Your task to perform on an android device: Play the last video I watched on Youtube Image 0: 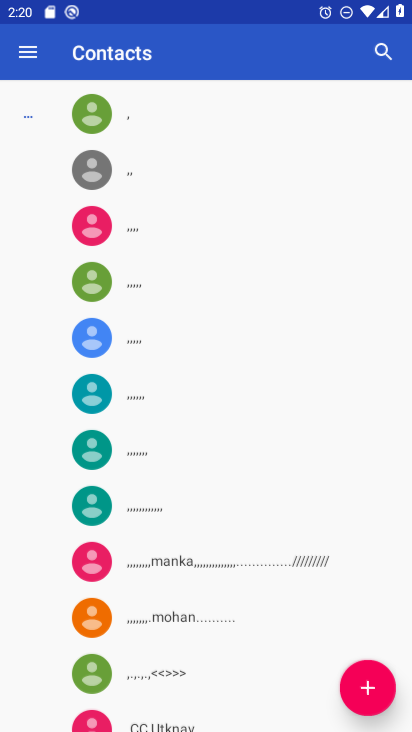
Step 0: drag from (280, 686) to (345, 437)
Your task to perform on an android device: Play the last video I watched on Youtube Image 1: 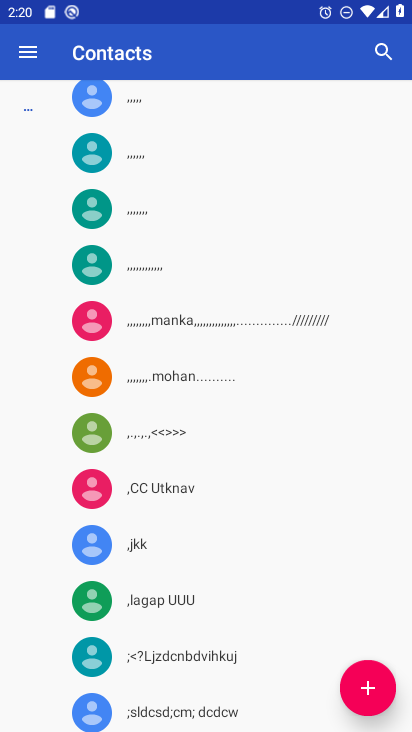
Step 1: press home button
Your task to perform on an android device: Play the last video I watched on Youtube Image 2: 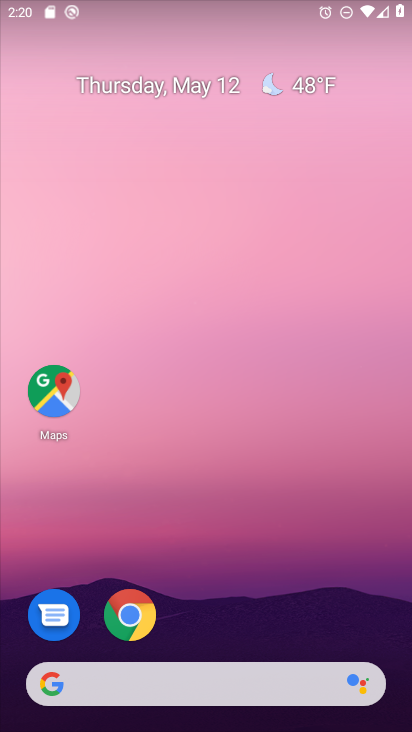
Step 2: drag from (271, 664) to (249, 19)
Your task to perform on an android device: Play the last video I watched on Youtube Image 3: 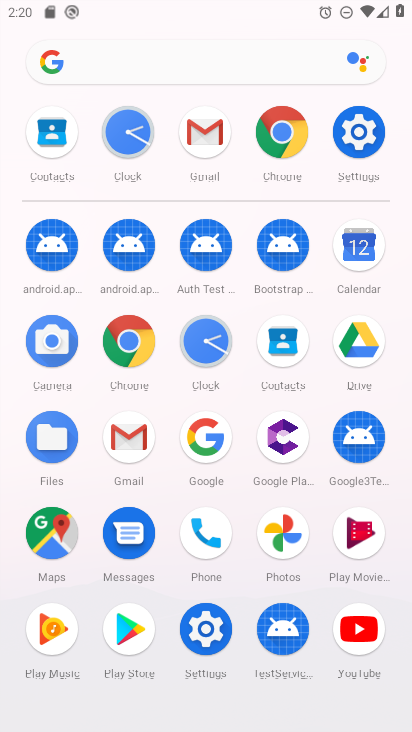
Step 3: click (351, 632)
Your task to perform on an android device: Play the last video I watched on Youtube Image 4: 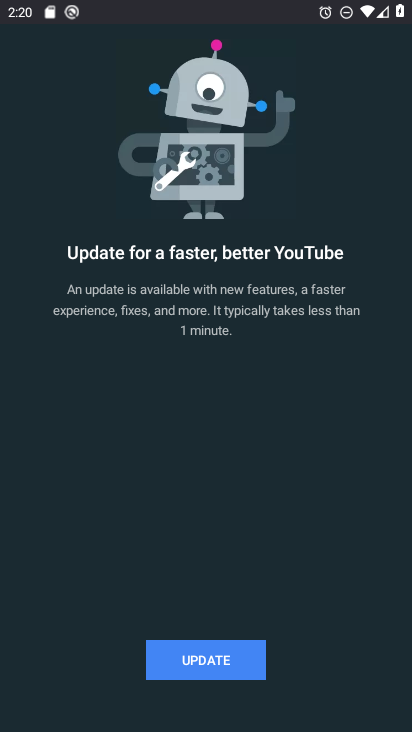
Step 4: click (225, 654)
Your task to perform on an android device: Play the last video I watched on Youtube Image 5: 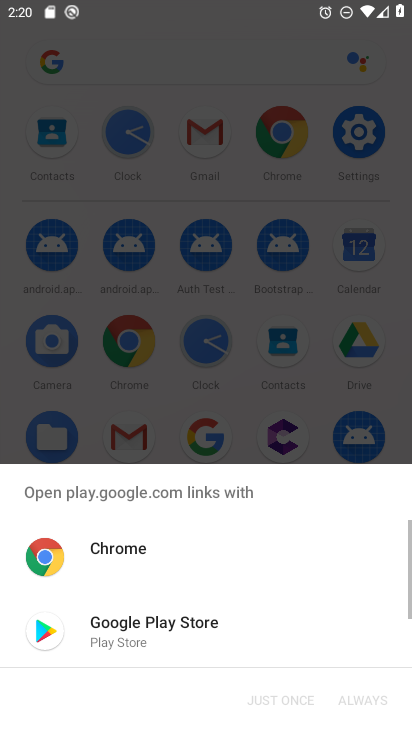
Step 5: click (169, 634)
Your task to perform on an android device: Play the last video I watched on Youtube Image 6: 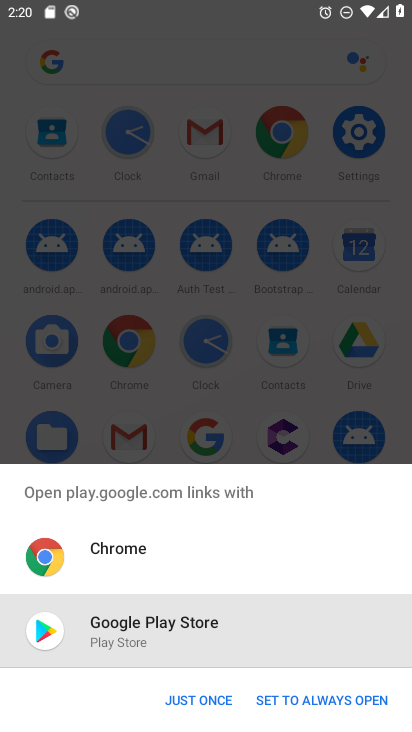
Step 6: click (209, 703)
Your task to perform on an android device: Play the last video I watched on Youtube Image 7: 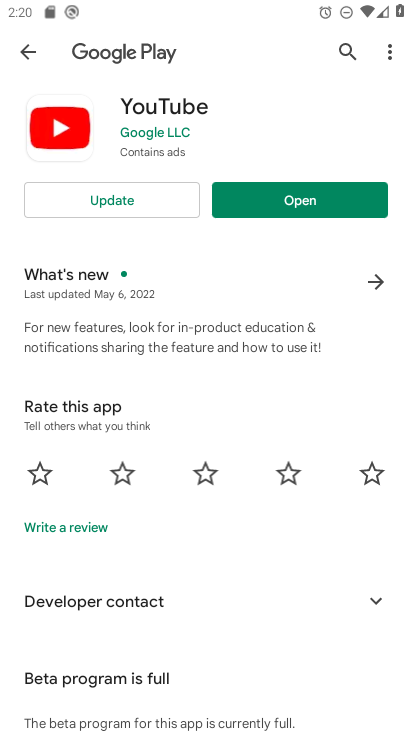
Step 7: click (146, 199)
Your task to perform on an android device: Play the last video I watched on Youtube Image 8: 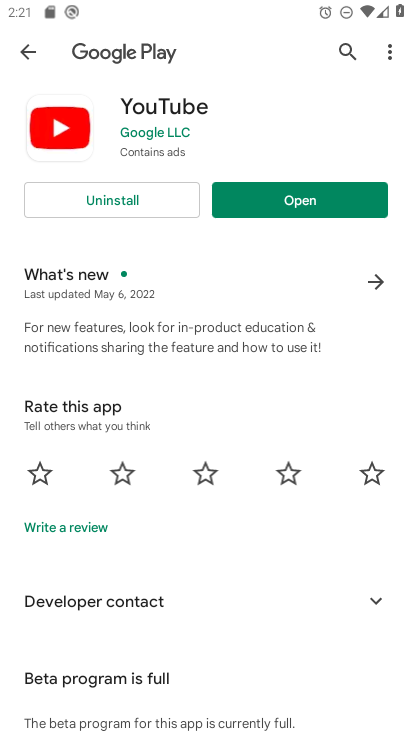
Step 8: click (345, 211)
Your task to perform on an android device: Play the last video I watched on Youtube Image 9: 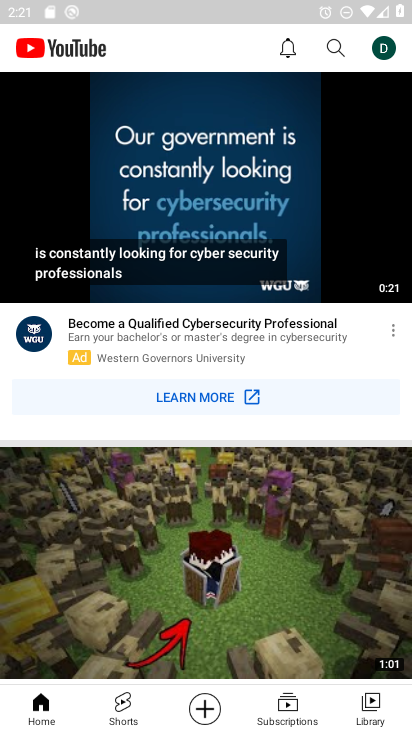
Step 9: click (360, 705)
Your task to perform on an android device: Play the last video I watched on Youtube Image 10: 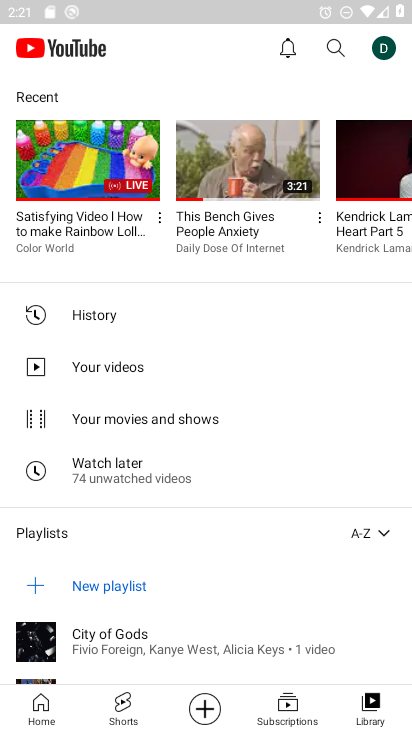
Step 10: click (116, 170)
Your task to perform on an android device: Play the last video I watched on Youtube Image 11: 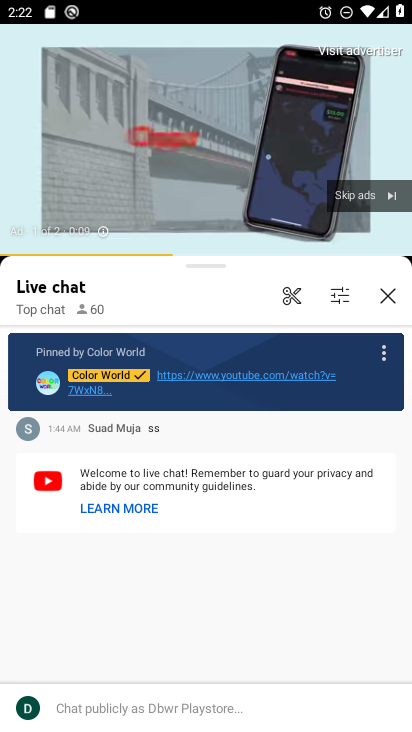
Step 11: click (377, 188)
Your task to perform on an android device: Play the last video I watched on Youtube Image 12: 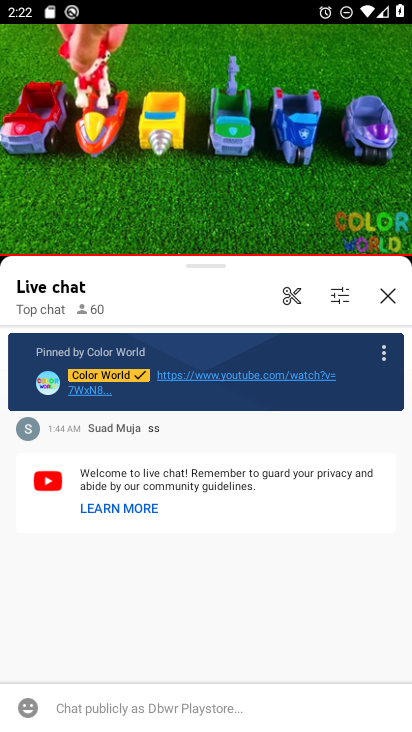
Step 12: click (178, 129)
Your task to perform on an android device: Play the last video I watched on Youtube Image 13: 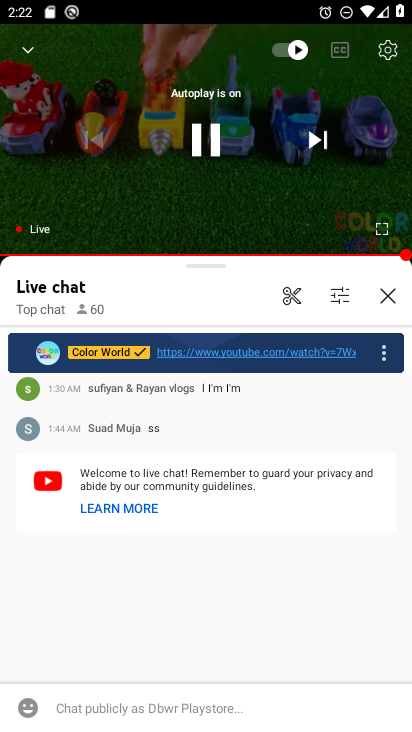
Step 13: click (218, 127)
Your task to perform on an android device: Play the last video I watched on Youtube Image 14: 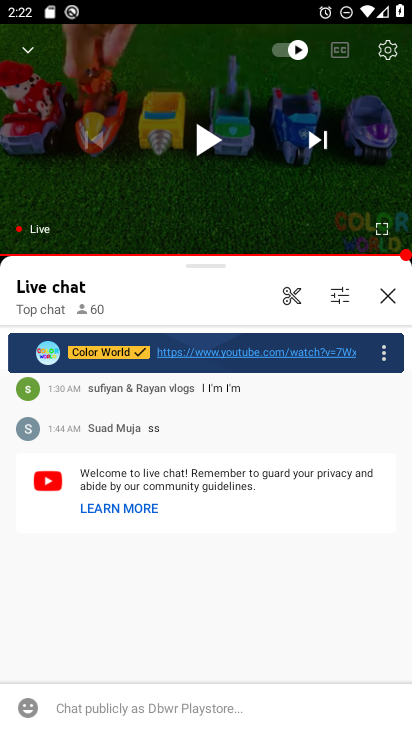
Step 14: task complete